Your task to perform on an android device: Open the map Image 0: 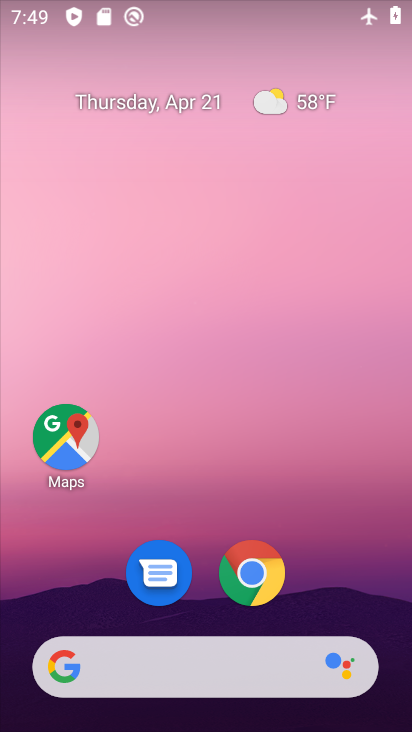
Step 0: click (66, 437)
Your task to perform on an android device: Open the map Image 1: 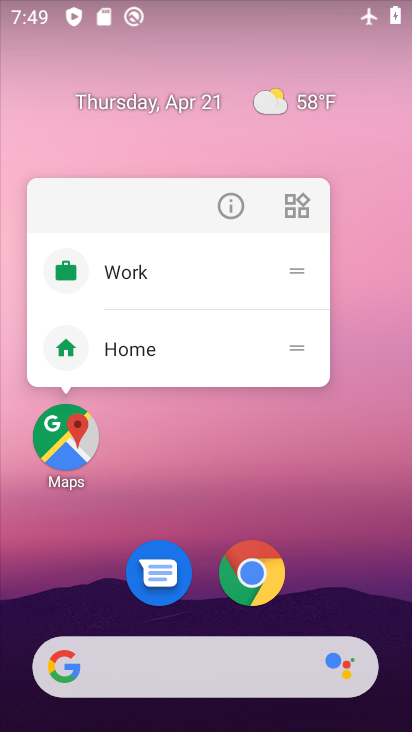
Step 1: click (66, 437)
Your task to perform on an android device: Open the map Image 2: 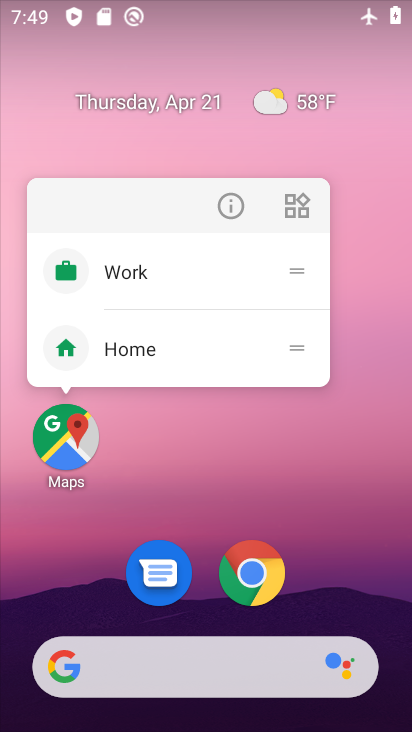
Step 2: click (61, 436)
Your task to perform on an android device: Open the map Image 3: 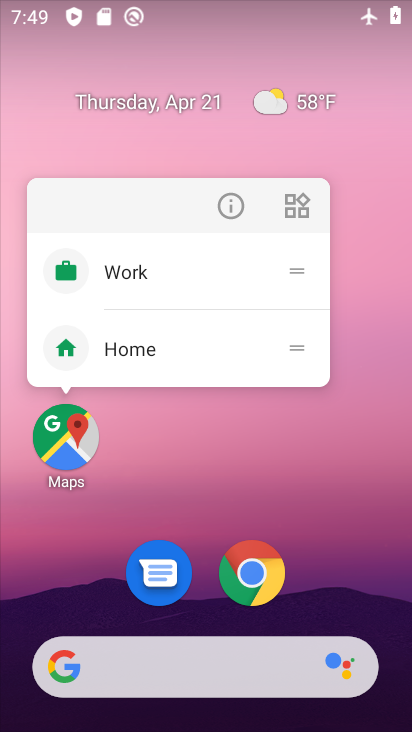
Step 3: click (64, 443)
Your task to perform on an android device: Open the map Image 4: 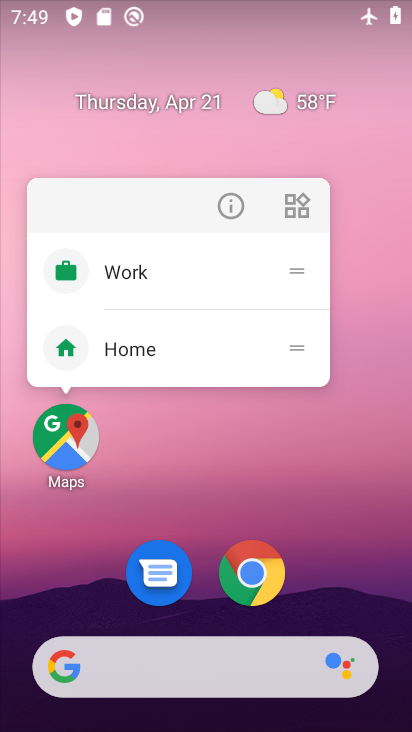
Step 4: click (64, 440)
Your task to perform on an android device: Open the map Image 5: 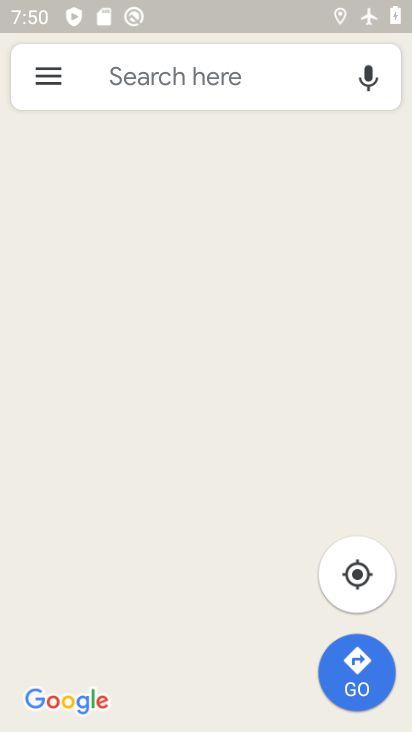
Step 5: task complete